Your task to perform on an android device: change timer sound Image 0: 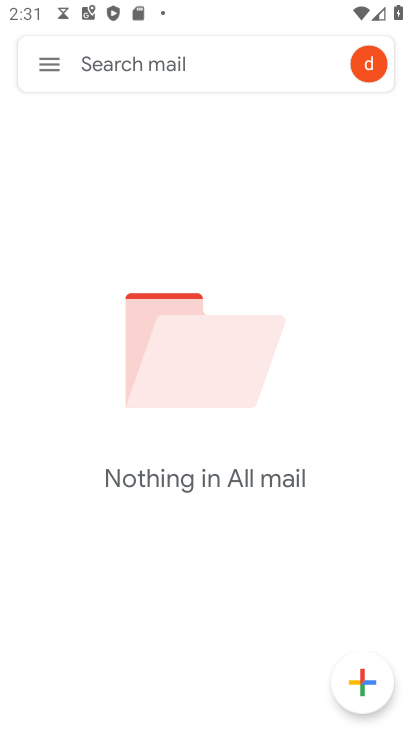
Step 0: press back button
Your task to perform on an android device: change timer sound Image 1: 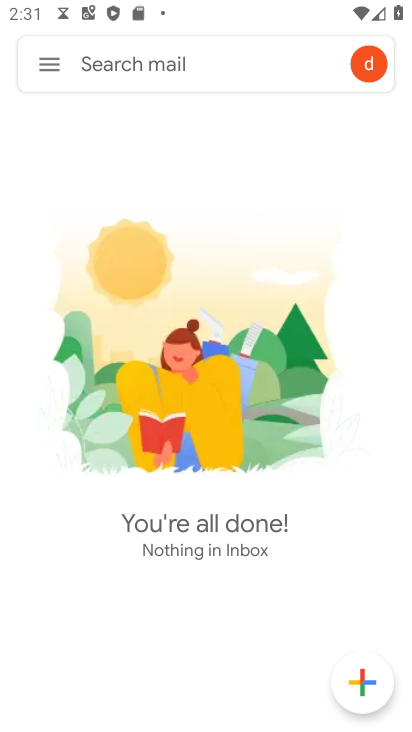
Step 1: press back button
Your task to perform on an android device: change timer sound Image 2: 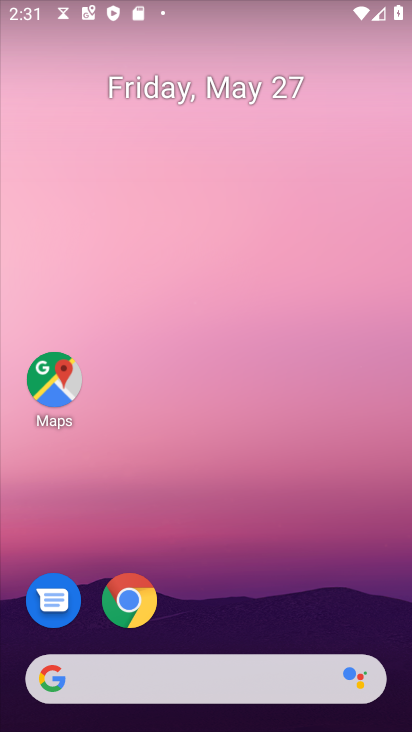
Step 2: drag from (286, 570) to (267, 18)
Your task to perform on an android device: change timer sound Image 3: 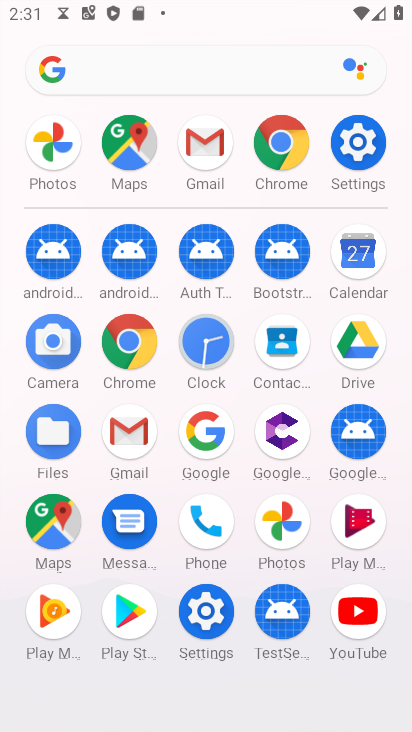
Step 3: click (357, 140)
Your task to perform on an android device: change timer sound Image 4: 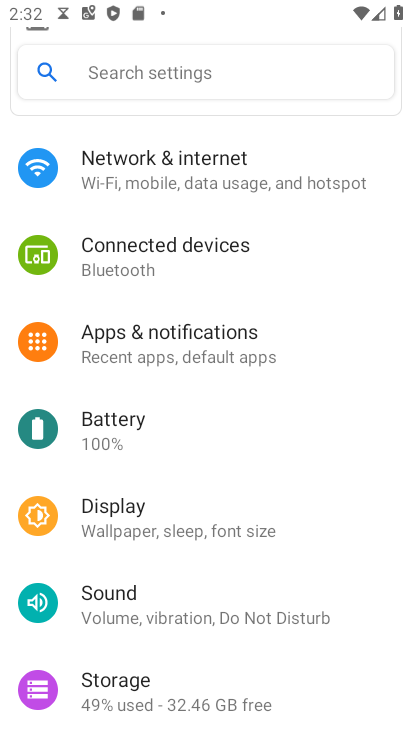
Step 4: click (160, 608)
Your task to perform on an android device: change timer sound Image 5: 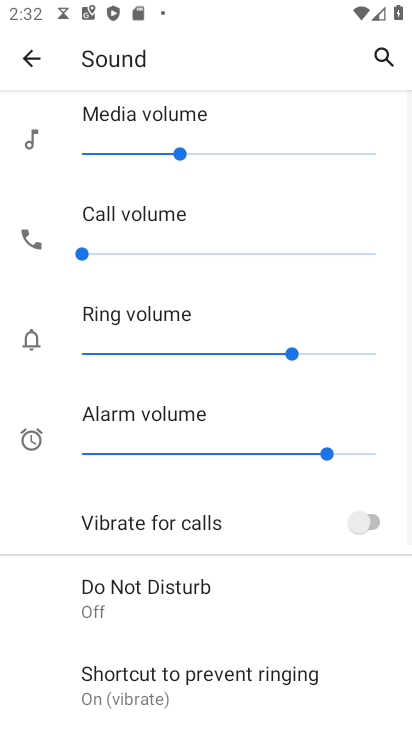
Step 5: drag from (259, 599) to (258, 156)
Your task to perform on an android device: change timer sound Image 6: 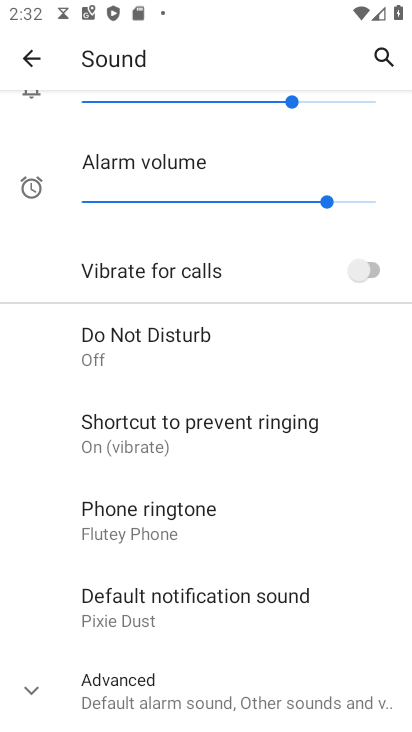
Step 6: click (14, 686)
Your task to perform on an android device: change timer sound Image 7: 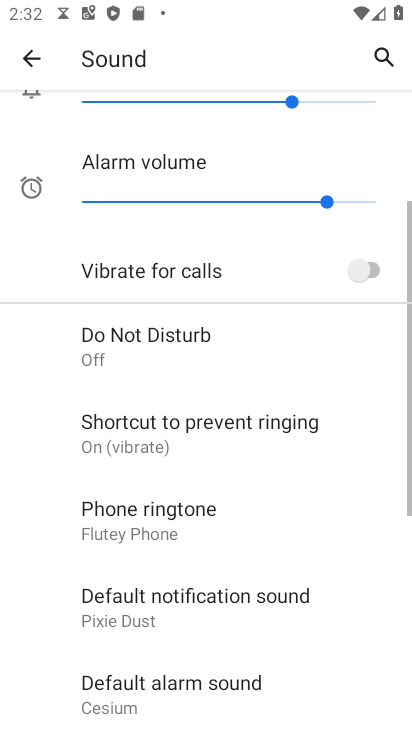
Step 7: drag from (211, 629) to (245, 100)
Your task to perform on an android device: change timer sound Image 8: 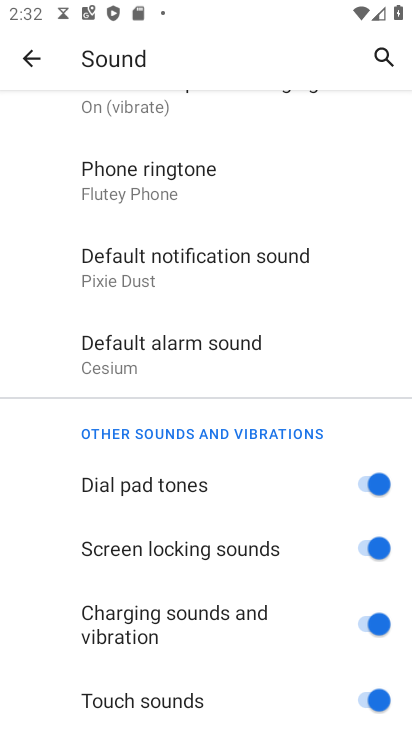
Step 8: drag from (226, 570) to (248, 122)
Your task to perform on an android device: change timer sound Image 9: 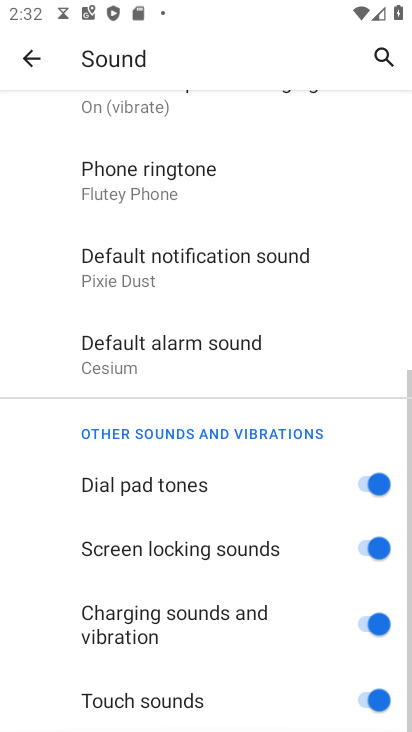
Step 9: drag from (254, 103) to (271, 560)
Your task to perform on an android device: change timer sound Image 10: 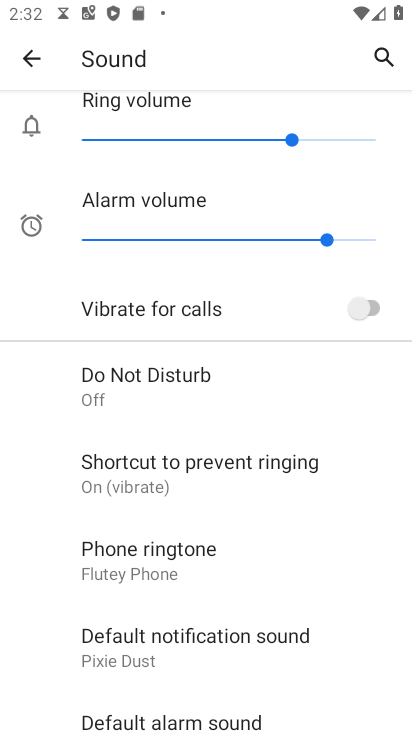
Step 10: drag from (243, 133) to (242, 540)
Your task to perform on an android device: change timer sound Image 11: 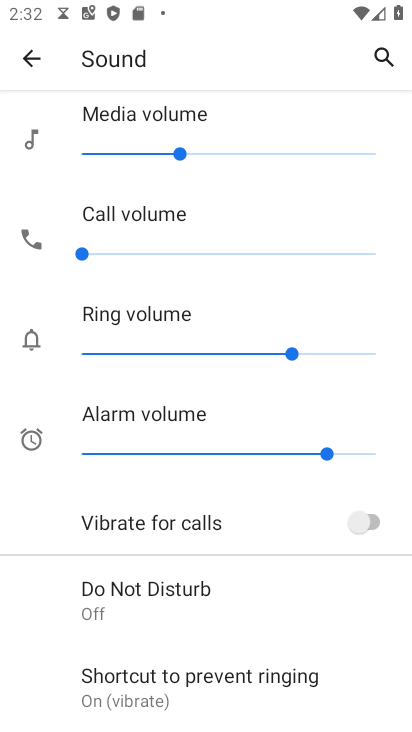
Step 11: drag from (242, 528) to (268, 138)
Your task to perform on an android device: change timer sound Image 12: 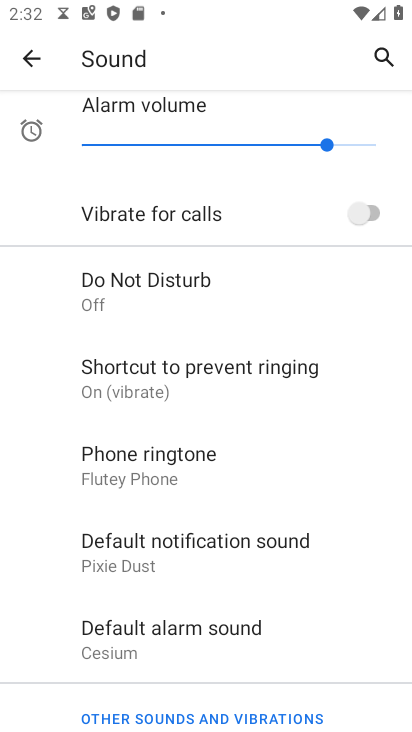
Step 12: drag from (238, 148) to (219, 545)
Your task to perform on an android device: change timer sound Image 13: 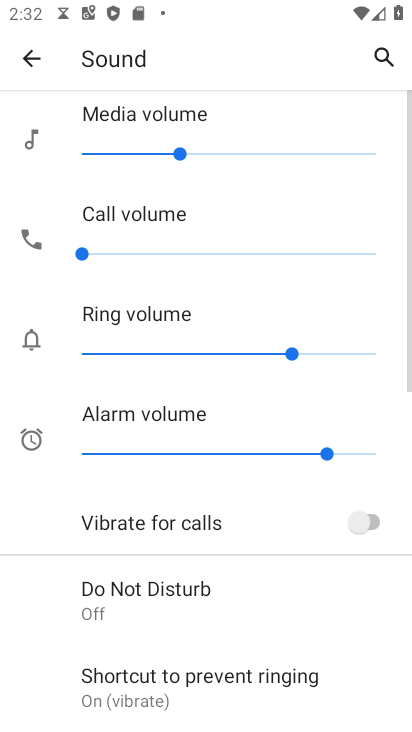
Step 13: drag from (216, 568) to (210, 197)
Your task to perform on an android device: change timer sound Image 14: 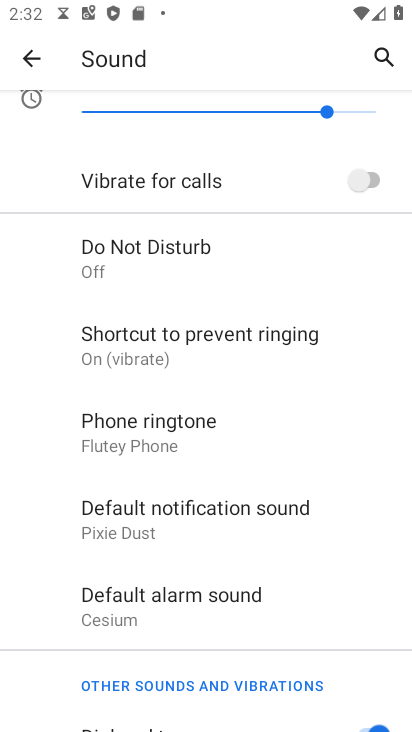
Step 14: drag from (277, 592) to (238, 236)
Your task to perform on an android device: change timer sound Image 15: 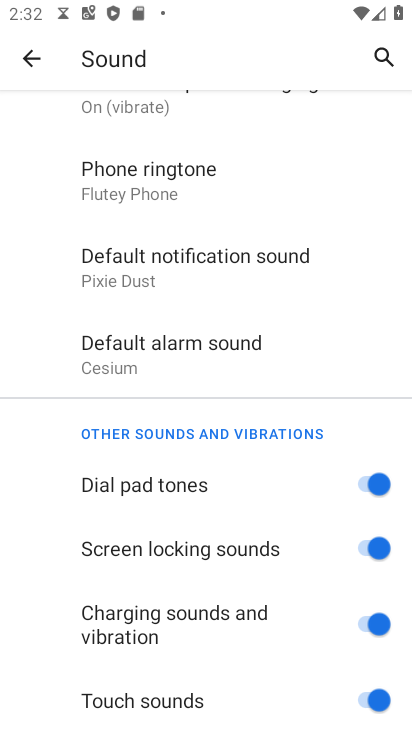
Step 15: drag from (257, 576) to (247, 220)
Your task to perform on an android device: change timer sound Image 16: 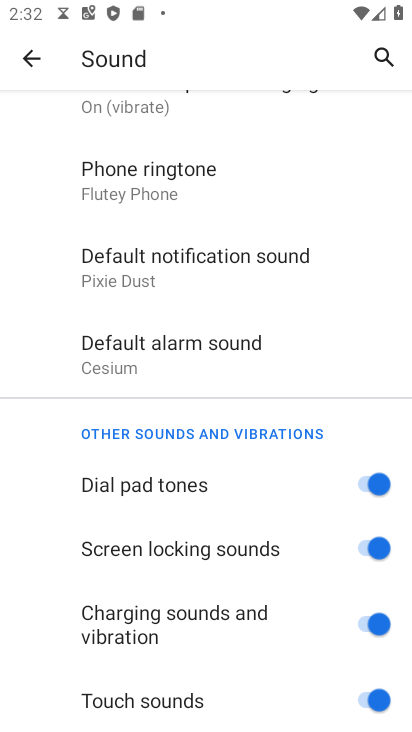
Step 16: drag from (250, 619) to (259, 217)
Your task to perform on an android device: change timer sound Image 17: 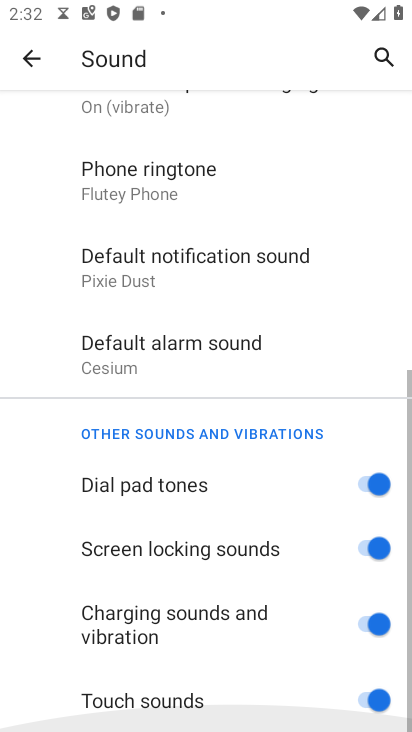
Step 17: drag from (260, 208) to (270, 691)
Your task to perform on an android device: change timer sound Image 18: 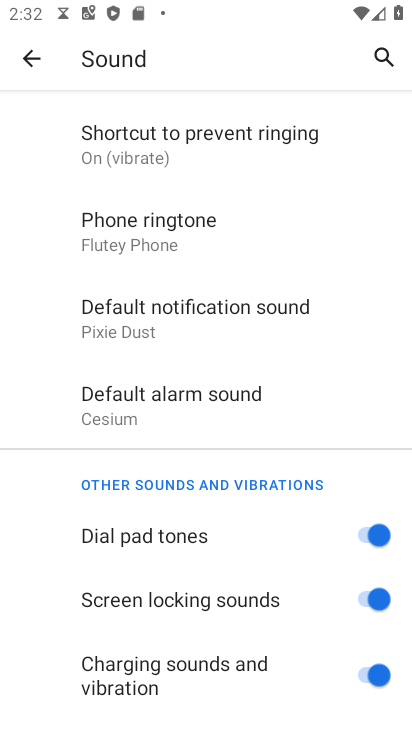
Step 18: drag from (234, 242) to (259, 703)
Your task to perform on an android device: change timer sound Image 19: 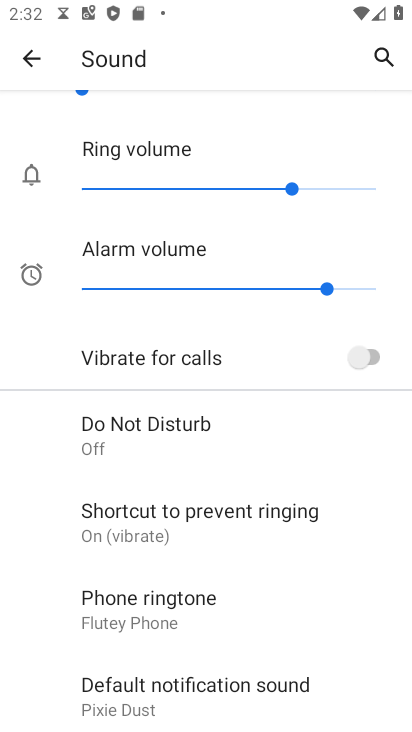
Step 19: drag from (238, 301) to (241, 593)
Your task to perform on an android device: change timer sound Image 20: 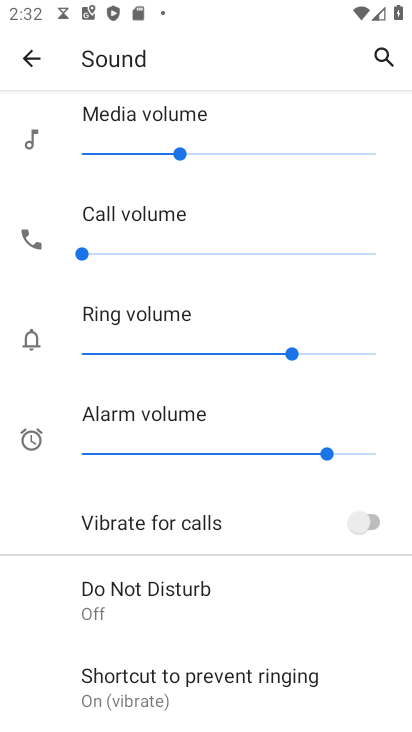
Step 20: drag from (231, 479) to (233, 727)
Your task to perform on an android device: change timer sound Image 21: 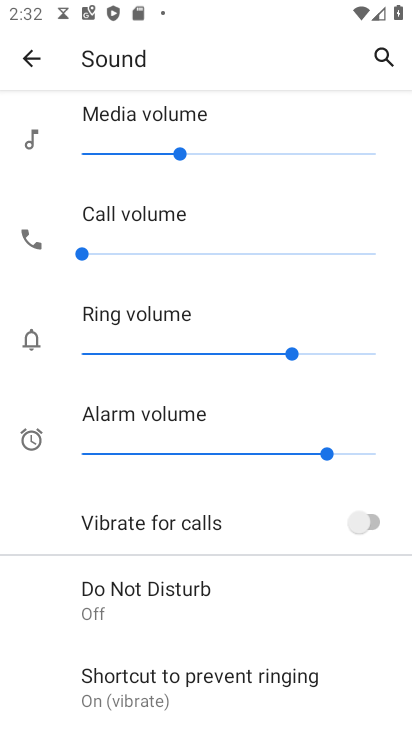
Step 21: drag from (258, 545) to (253, 159)
Your task to perform on an android device: change timer sound Image 22: 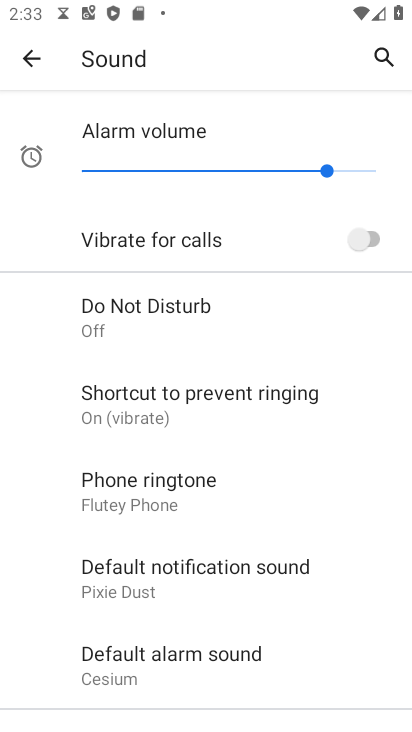
Step 22: drag from (212, 526) to (243, 194)
Your task to perform on an android device: change timer sound Image 23: 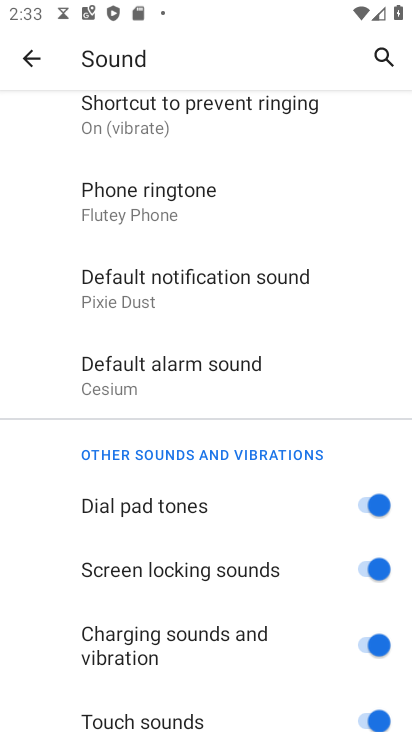
Step 23: drag from (245, 611) to (301, 159)
Your task to perform on an android device: change timer sound Image 24: 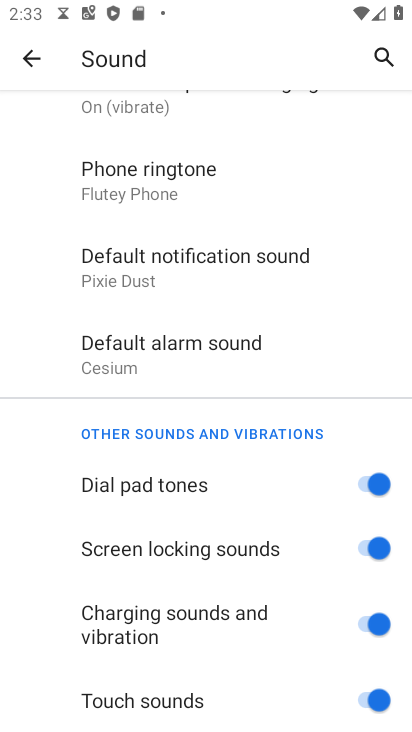
Step 24: press home button
Your task to perform on an android device: change timer sound Image 25: 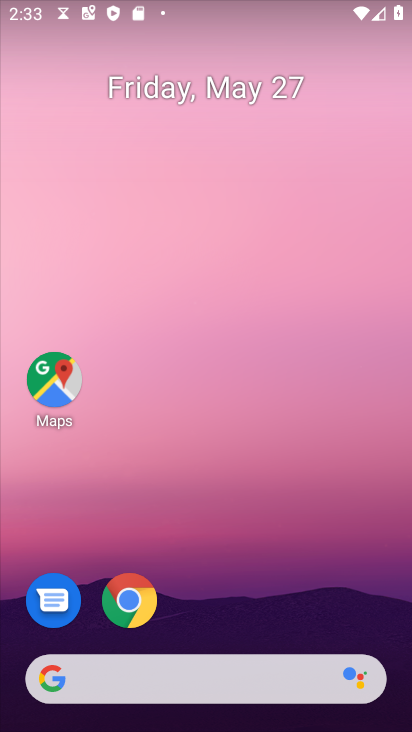
Step 25: drag from (314, 558) to (250, 54)
Your task to perform on an android device: change timer sound Image 26: 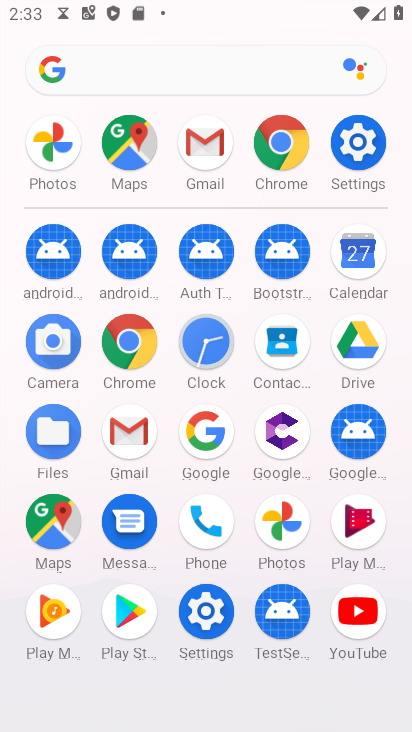
Step 26: click (206, 340)
Your task to perform on an android device: change timer sound Image 27: 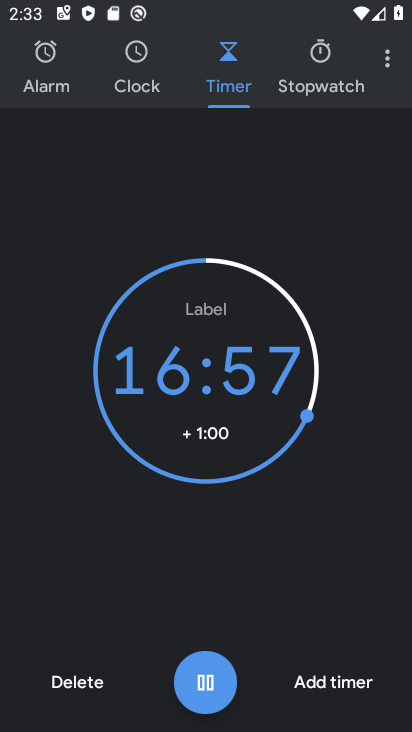
Step 27: drag from (383, 61) to (332, 107)
Your task to perform on an android device: change timer sound Image 28: 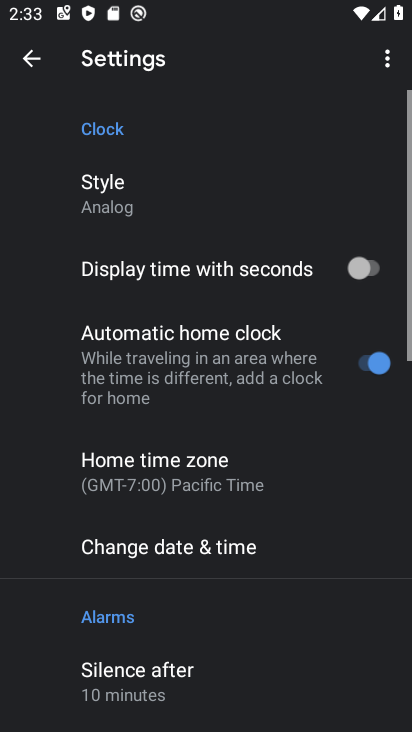
Step 28: drag from (281, 566) to (250, 140)
Your task to perform on an android device: change timer sound Image 29: 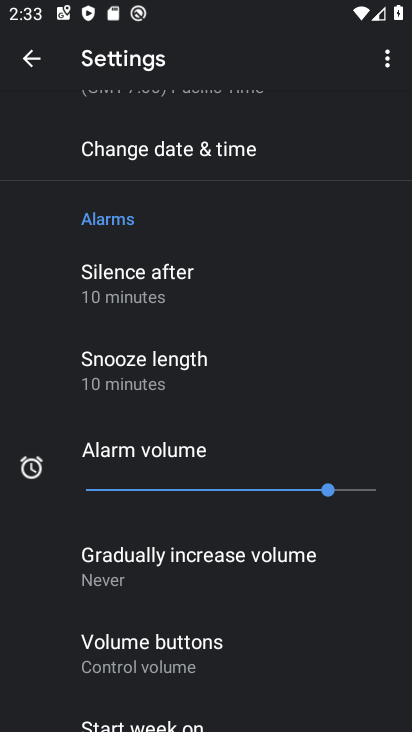
Step 29: drag from (284, 430) to (277, 88)
Your task to perform on an android device: change timer sound Image 30: 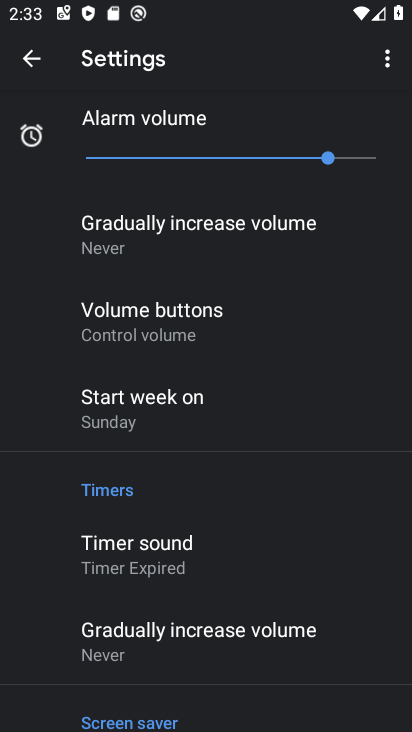
Step 30: click (187, 558)
Your task to perform on an android device: change timer sound Image 31: 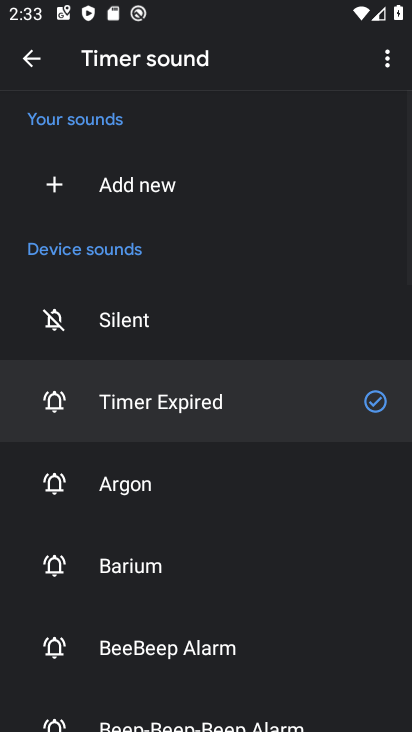
Step 31: click (146, 469)
Your task to perform on an android device: change timer sound Image 32: 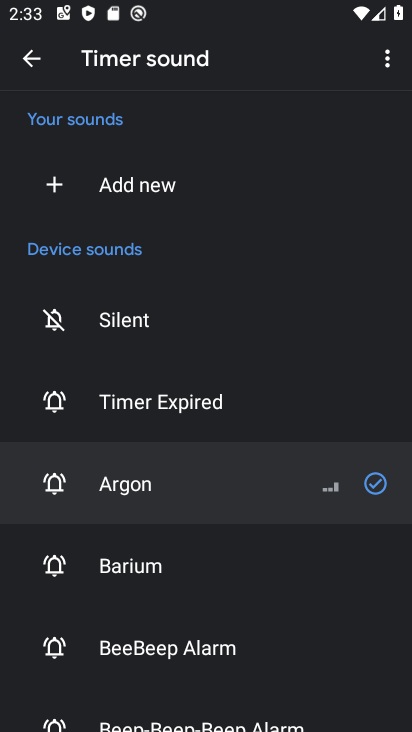
Step 32: task complete